Your task to perform on an android device: Open calendar and show me the second week of next month Image 0: 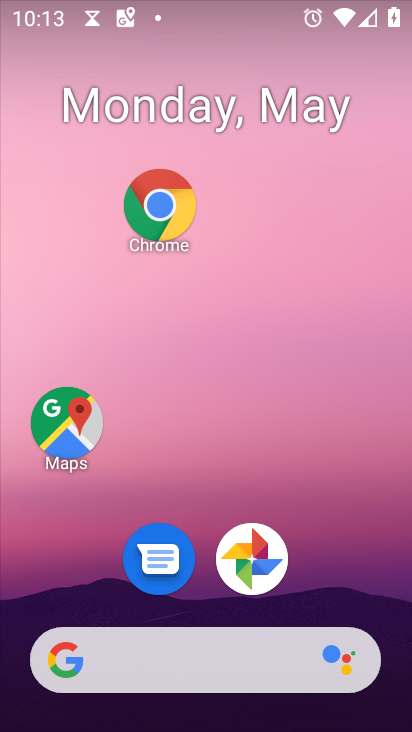
Step 0: drag from (248, 540) to (174, 85)
Your task to perform on an android device: Open calendar and show me the second week of next month Image 1: 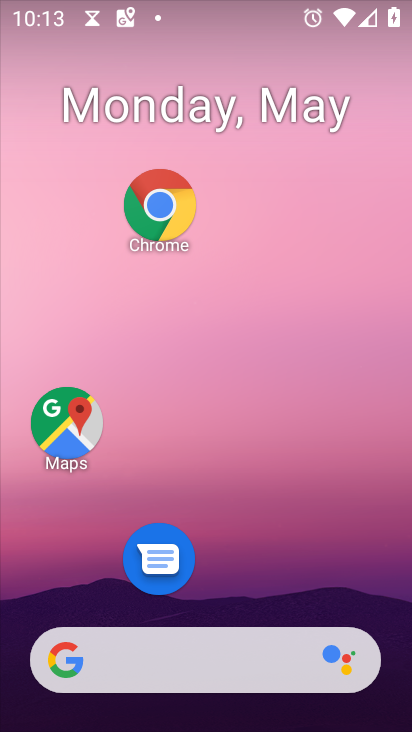
Step 1: click (228, 461)
Your task to perform on an android device: Open calendar and show me the second week of next month Image 2: 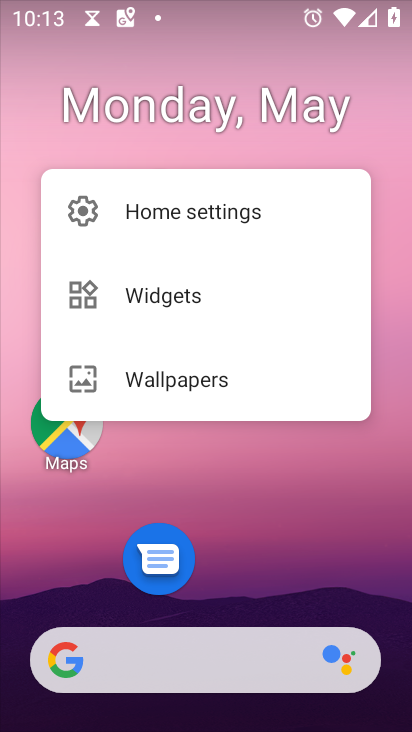
Step 2: drag from (269, 707) to (162, 3)
Your task to perform on an android device: Open calendar and show me the second week of next month Image 3: 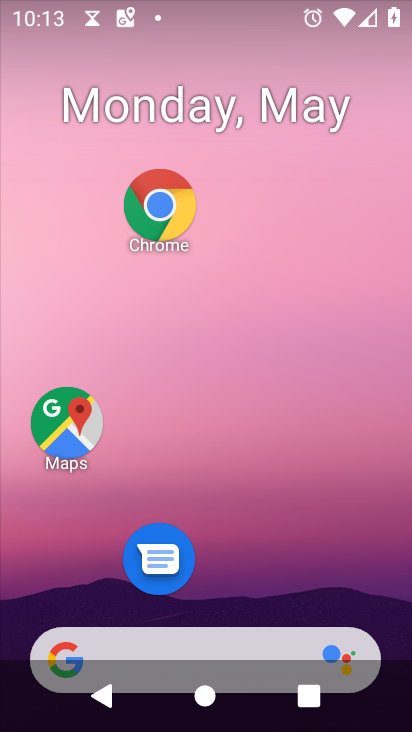
Step 3: drag from (351, 519) to (289, 154)
Your task to perform on an android device: Open calendar and show me the second week of next month Image 4: 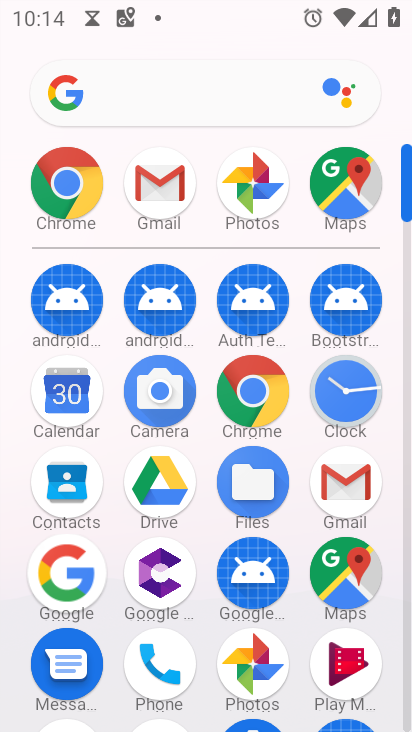
Step 4: click (247, 394)
Your task to perform on an android device: Open calendar and show me the second week of next month Image 5: 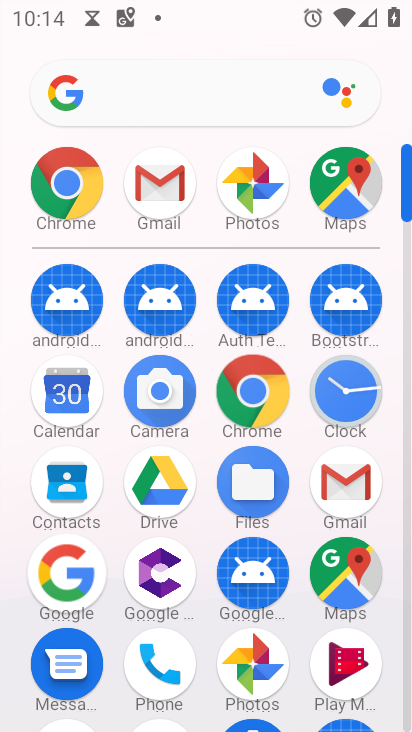
Step 5: click (247, 394)
Your task to perform on an android device: Open calendar and show me the second week of next month Image 6: 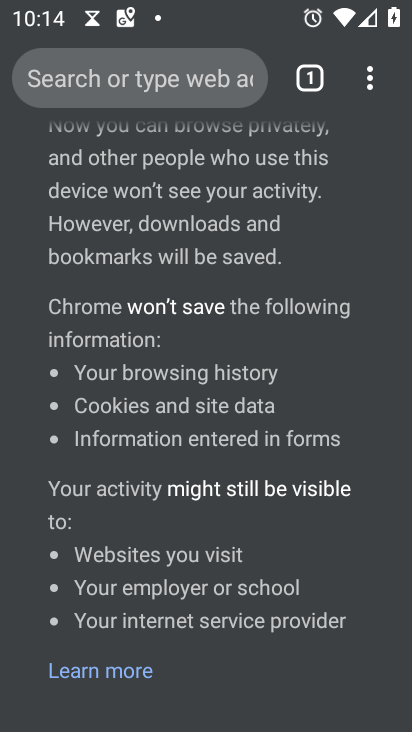
Step 6: click (362, 87)
Your task to perform on an android device: Open calendar and show me the second week of next month Image 7: 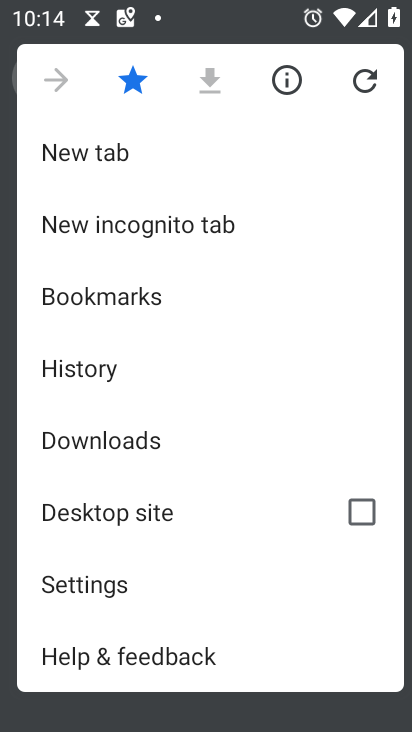
Step 7: press back button
Your task to perform on an android device: Open calendar and show me the second week of next month Image 8: 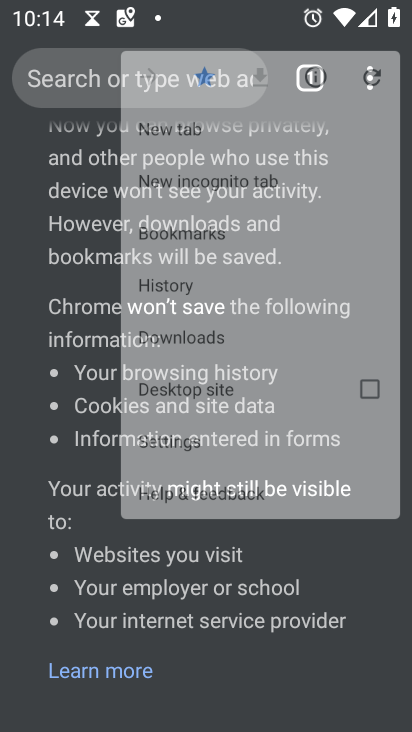
Step 8: press back button
Your task to perform on an android device: Open calendar and show me the second week of next month Image 9: 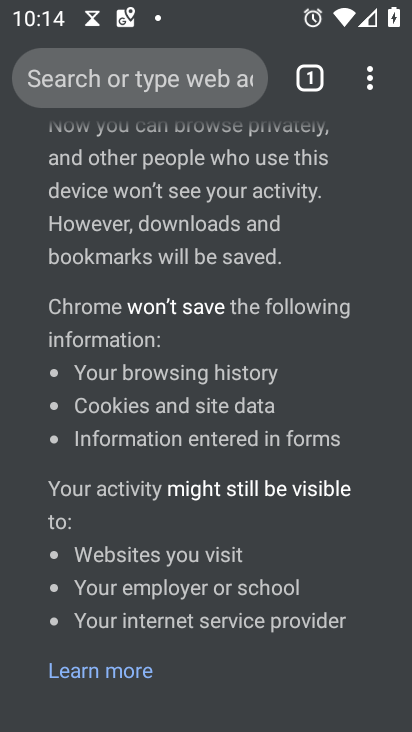
Step 9: press back button
Your task to perform on an android device: Open calendar and show me the second week of next month Image 10: 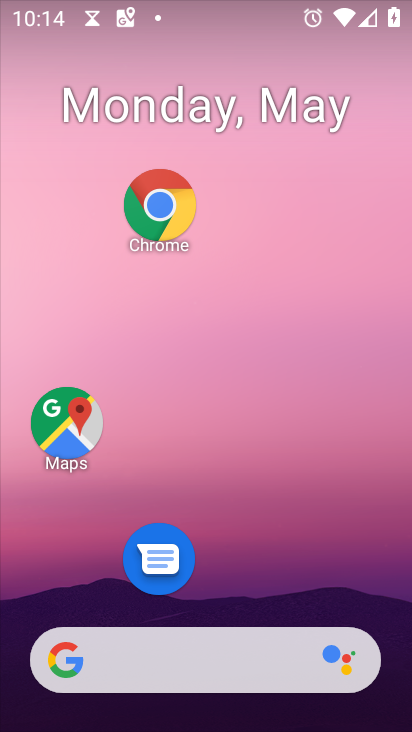
Step 10: drag from (259, 627) to (187, 136)
Your task to perform on an android device: Open calendar and show me the second week of next month Image 11: 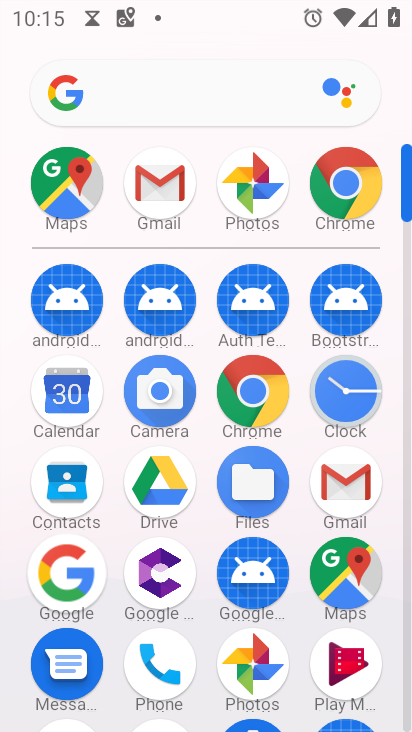
Step 11: click (56, 402)
Your task to perform on an android device: Open calendar and show me the second week of next month Image 12: 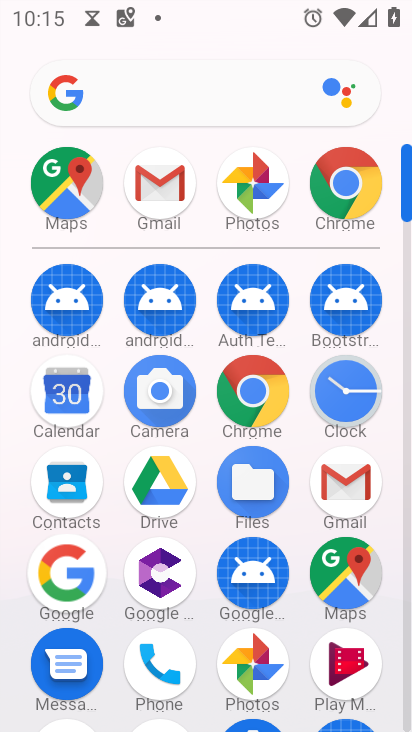
Step 12: click (56, 402)
Your task to perform on an android device: Open calendar and show me the second week of next month Image 13: 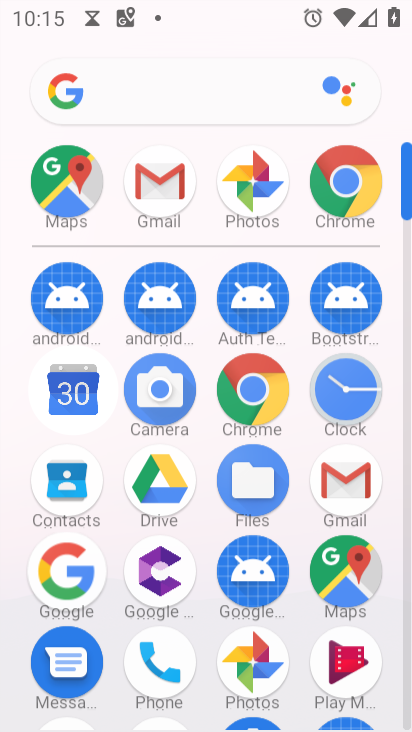
Step 13: click (56, 401)
Your task to perform on an android device: Open calendar and show me the second week of next month Image 14: 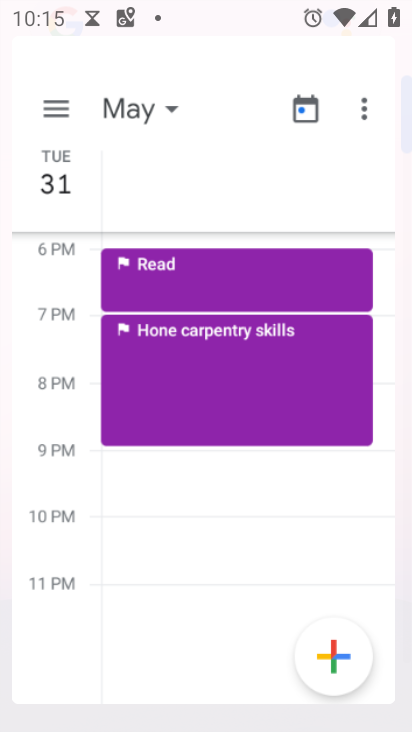
Step 14: click (57, 399)
Your task to perform on an android device: Open calendar and show me the second week of next month Image 15: 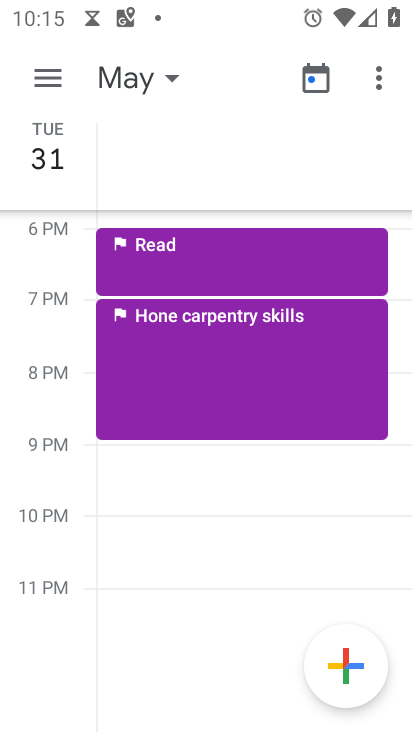
Step 15: click (379, 86)
Your task to perform on an android device: Open calendar and show me the second week of next month Image 16: 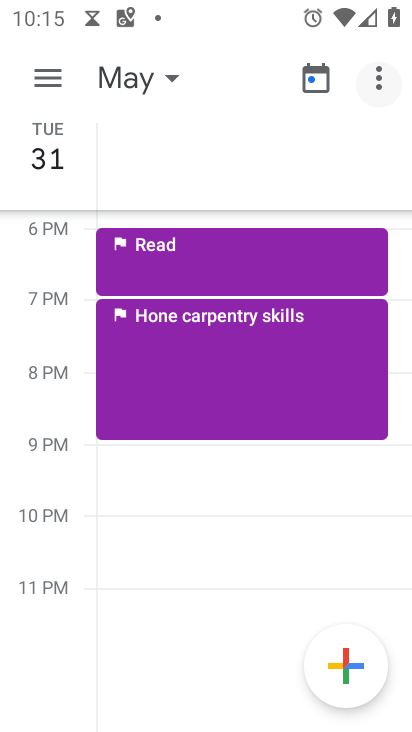
Step 16: click (380, 86)
Your task to perform on an android device: Open calendar and show me the second week of next month Image 17: 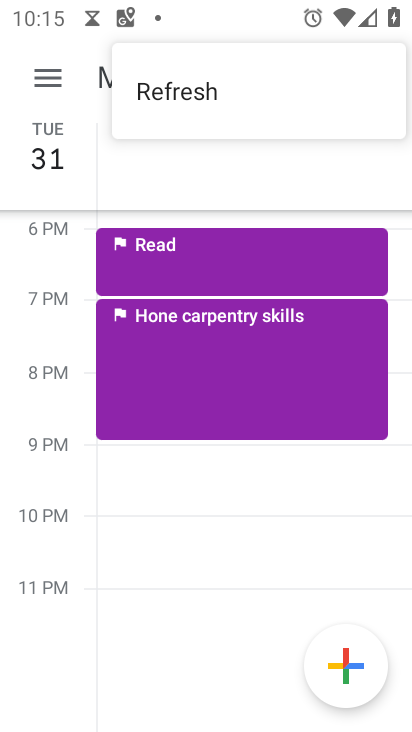
Step 17: click (163, 514)
Your task to perform on an android device: Open calendar and show me the second week of next month Image 18: 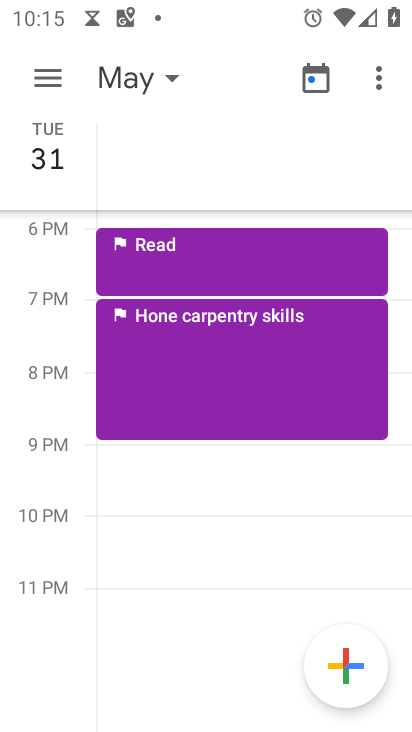
Step 18: click (161, 493)
Your task to perform on an android device: Open calendar and show me the second week of next month Image 19: 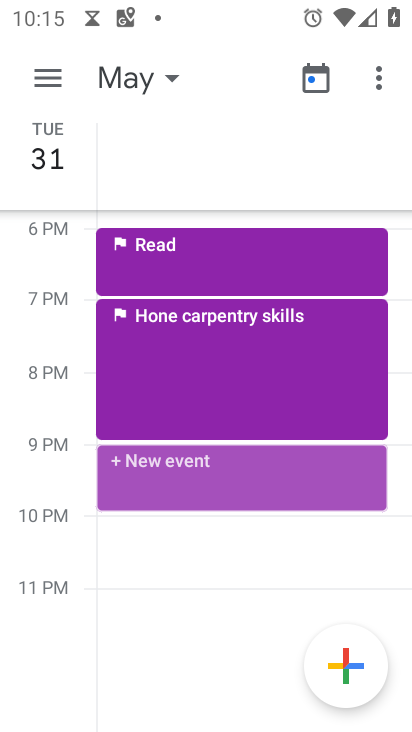
Step 19: click (161, 493)
Your task to perform on an android device: Open calendar and show me the second week of next month Image 20: 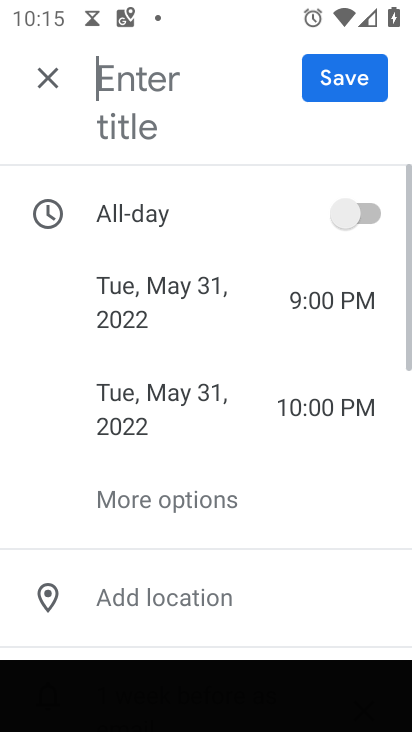
Step 20: click (377, 94)
Your task to perform on an android device: Open calendar and show me the second week of next month Image 21: 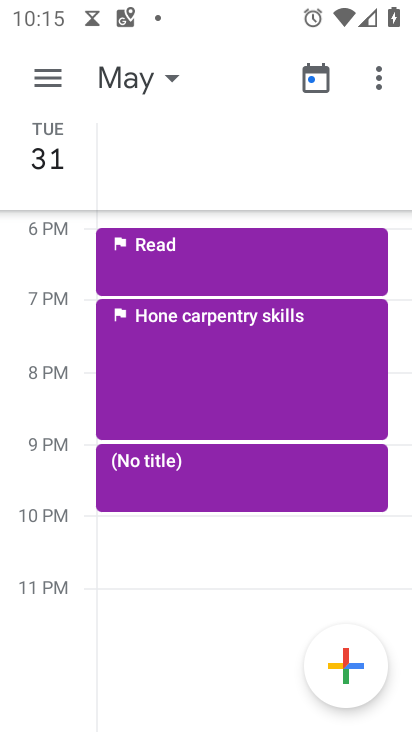
Step 21: task complete